Your task to perform on an android device: refresh tabs in the chrome app Image 0: 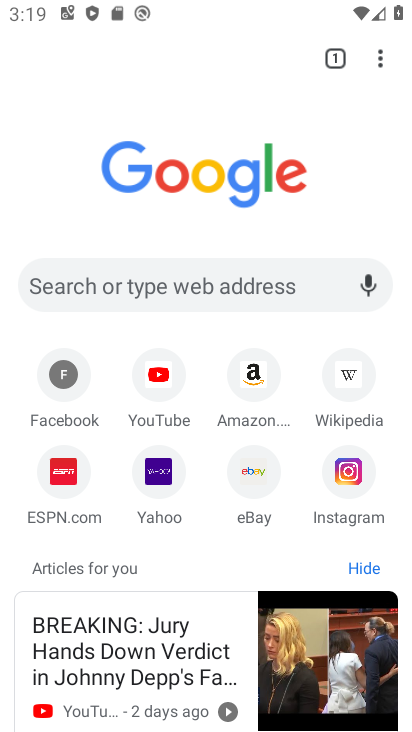
Step 0: click (383, 49)
Your task to perform on an android device: refresh tabs in the chrome app Image 1: 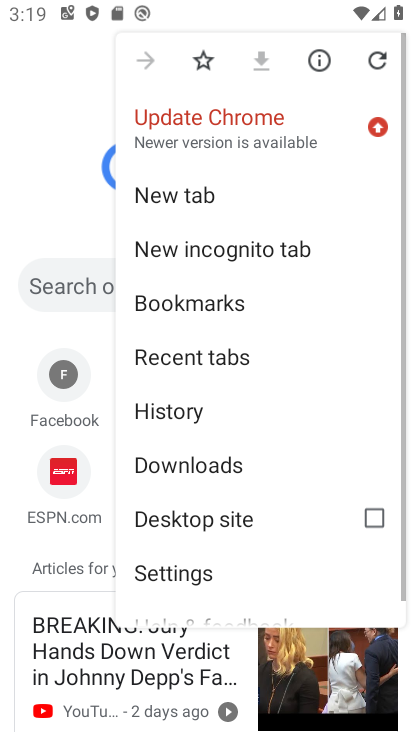
Step 1: click (383, 49)
Your task to perform on an android device: refresh tabs in the chrome app Image 2: 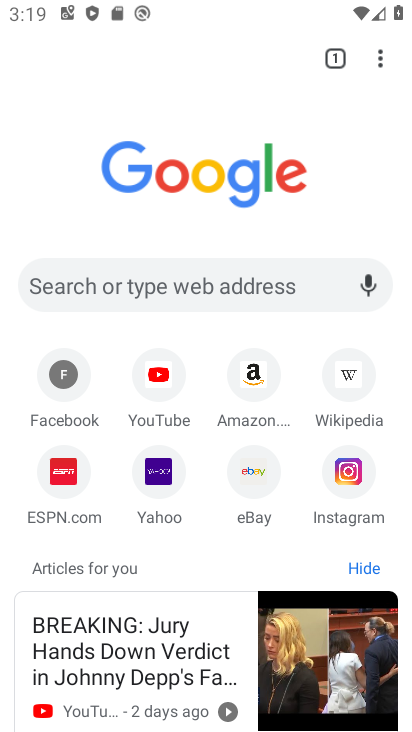
Step 2: task complete